Your task to perform on an android device: toggle improve location accuracy Image 0: 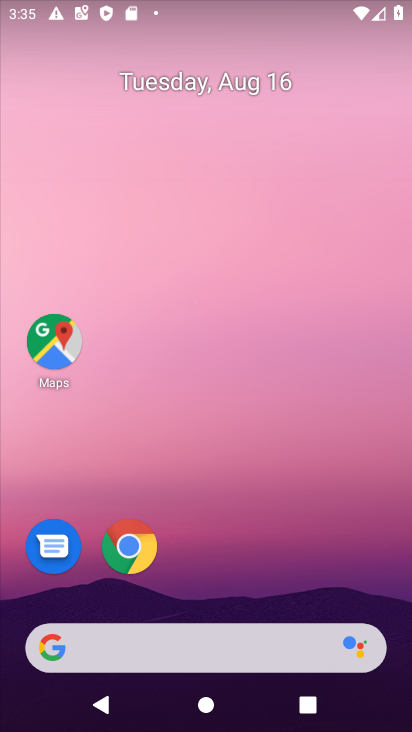
Step 0: press home button
Your task to perform on an android device: toggle improve location accuracy Image 1: 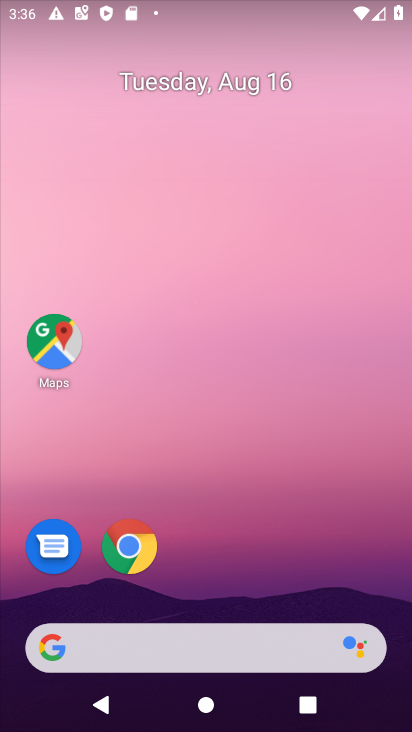
Step 1: drag from (305, 587) to (344, 99)
Your task to perform on an android device: toggle improve location accuracy Image 2: 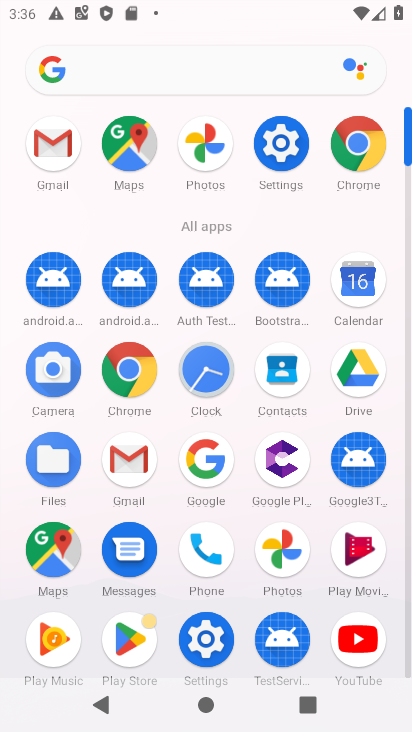
Step 2: click (285, 148)
Your task to perform on an android device: toggle improve location accuracy Image 3: 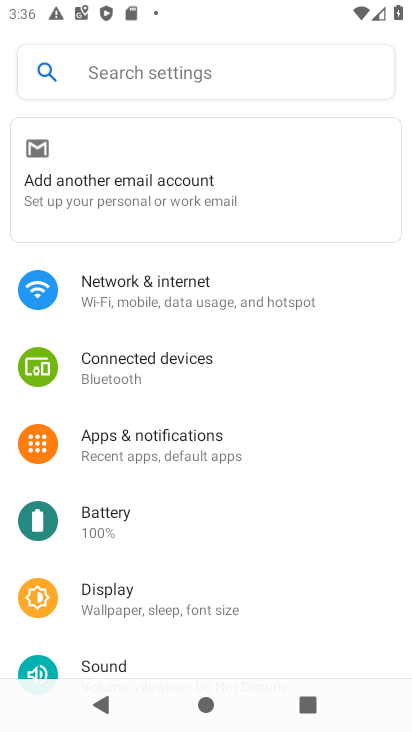
Step 3: drag from (345, 555) to (353, 396)
Your task to perform on an android device: toggle improve location accuracy Image 4: 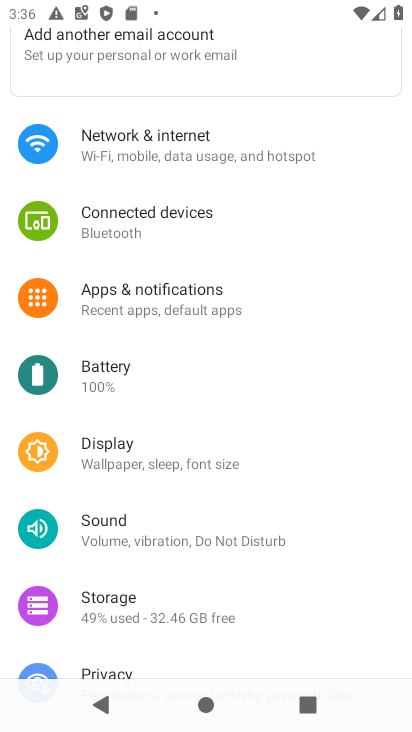
Step 4: drag from (331, 541) to (351, 386)
Your task to perform on an android device: toggle improve location accuracy Image 5: 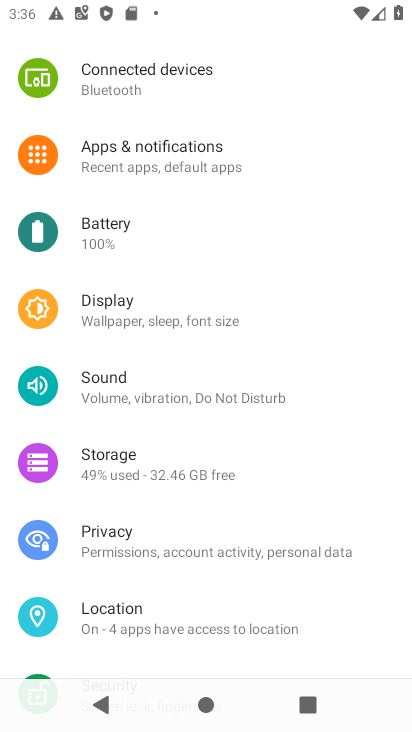
Step 5: drag from (337, 584) to (344, 413)
Your task to perform on an android device: toggle improve location accuracy Image 6: 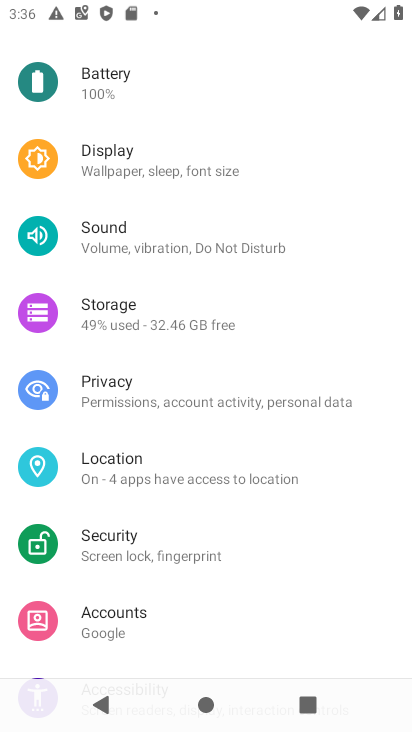
Step 6: drag from (329, 569) to (329, 402)
Your task to perform on an android device: toggle improve location accuracy Image 7: 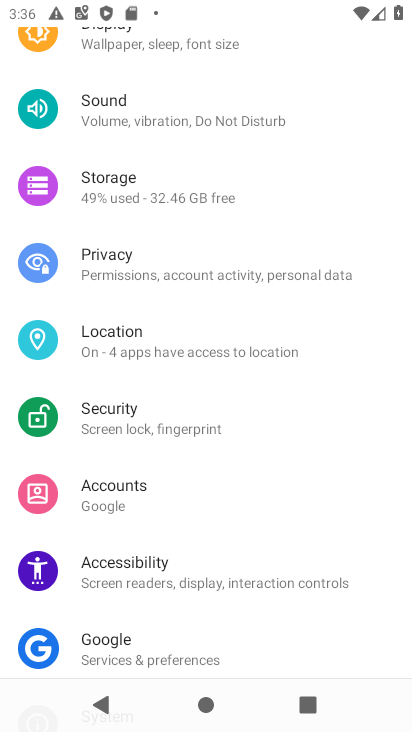
Step 7: click (251, 347)
Your task to perform on an android device: toggle improve location accuracy Image 8: 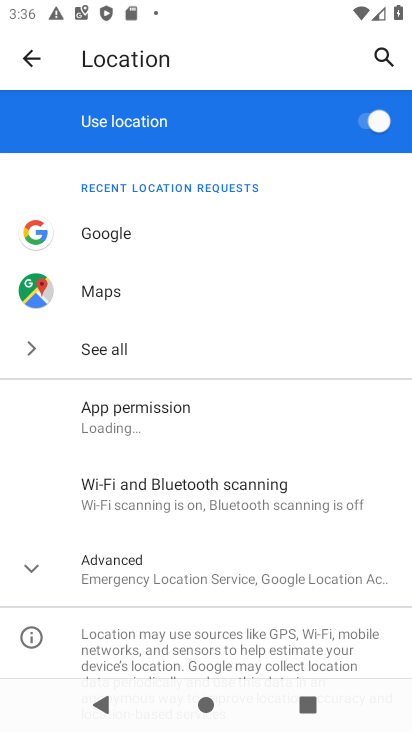
Step 8: click (256, 576)
Your task to perform on an android device: toggle improve location accuracy Image 9: 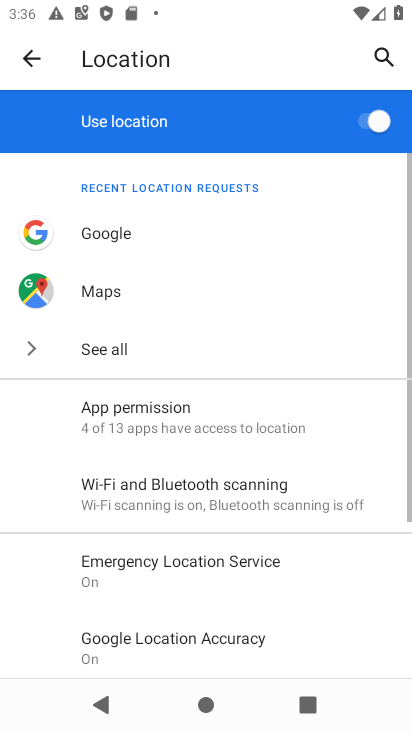
Step 9: drag from (263, 606) to (298, 425)
Your task to perform on an android device: toggle improve location accuracy Image 10: 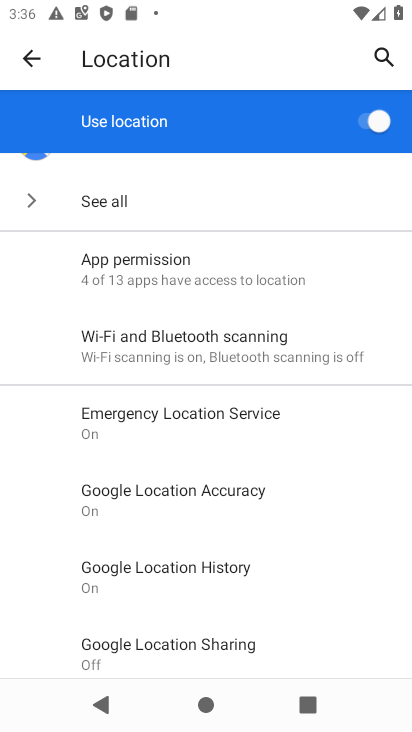
Step 10: drag from (318, 575) to (332, 438)
Your task to perform on an android device: toggle improve location accuracy Image 11: 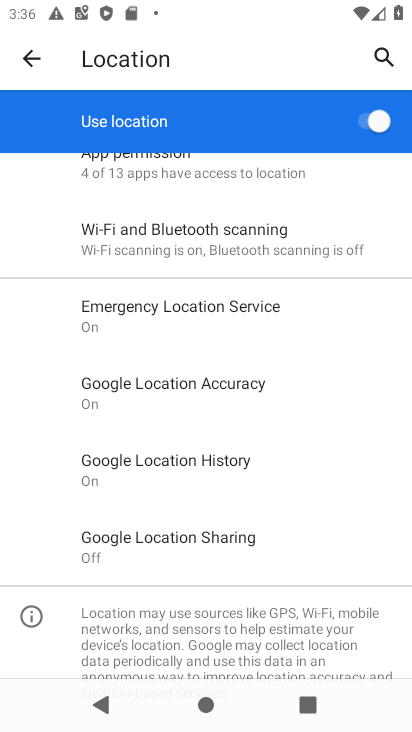
Step 11: drag from (328, 560) to (346, 444)
Your task to perform on an android device: toggle improve location accuracy Image 12: 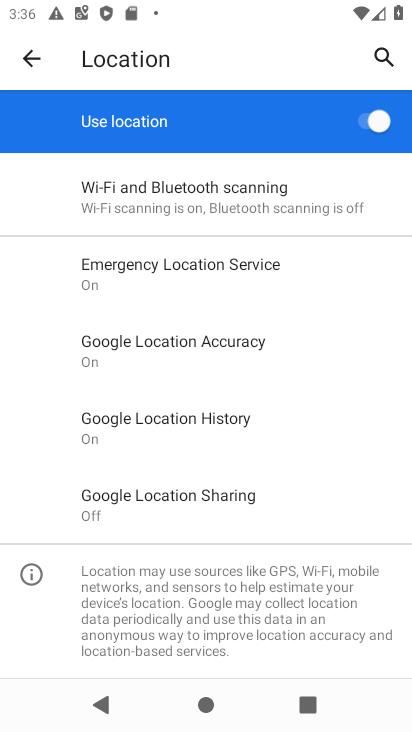
Step 12: click (201, 347)
Your task to perform on an android device: toggle improve location accuracy Image 13: 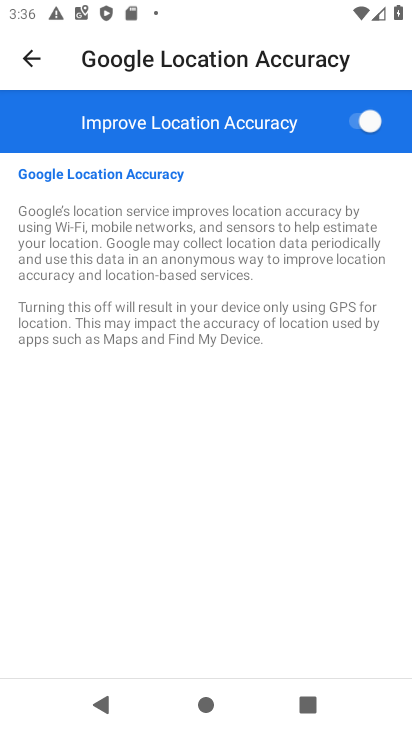
Step 13: click (372, 118)
Your task to perform on an android device: toggle improve location accuracy Image 14: 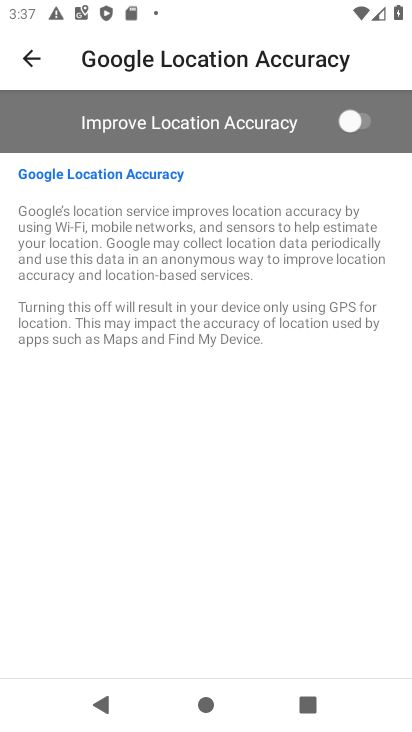
Step 14: task complete